Your task to perform on an android device: Go to internet settings Image 0: 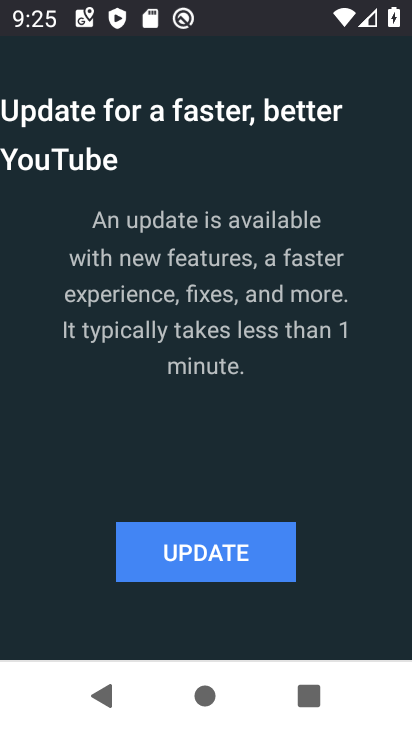
Step 0: press home button
Your task to perform on an android device: Go to internet settings Image 1: 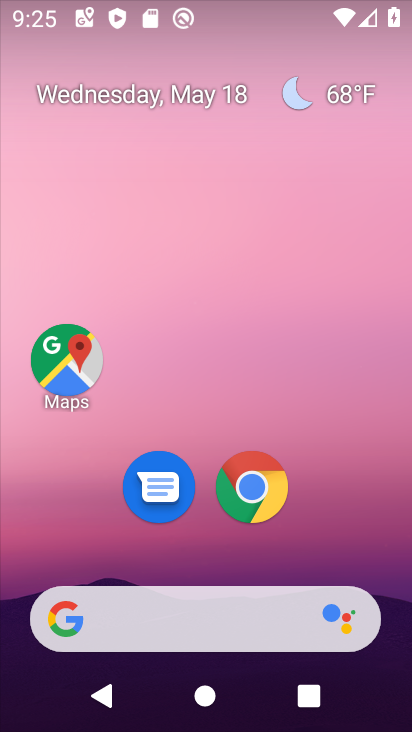
Step 1: drag from (380, 543) to (341, 127)
Your task to perform on an android device: Go to internet settings Image 2: 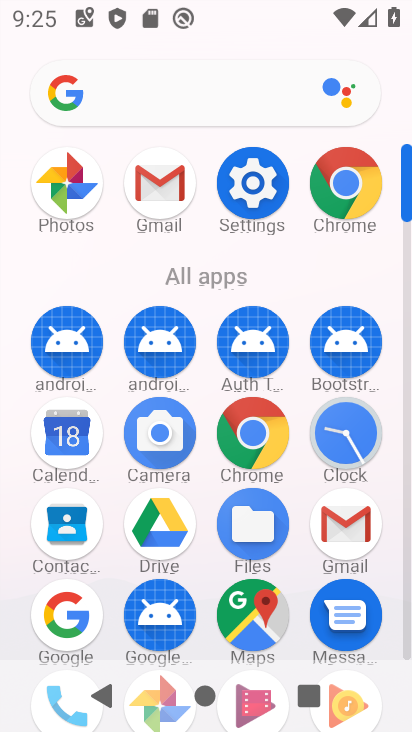
Step 2: click (253, 168)
Your task to perform on an android device: Go to internet settings Image 3: 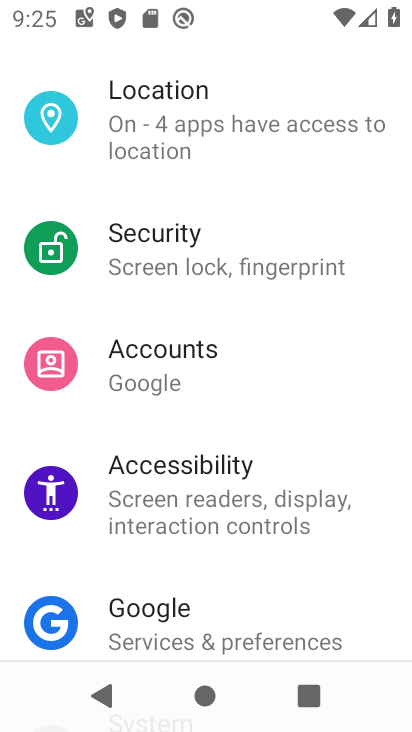
Step 3: drag from (269, 199) to (301, 614)
Your task to perform on an android device: Go to internet settings Image 4: 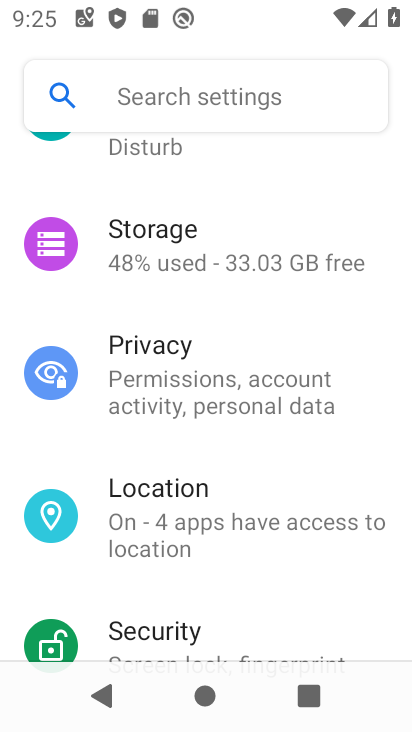
Step 4: drag from (296, 171) to (308, 551)
Your task to perform on an android device: Go to internet settings Image 5: 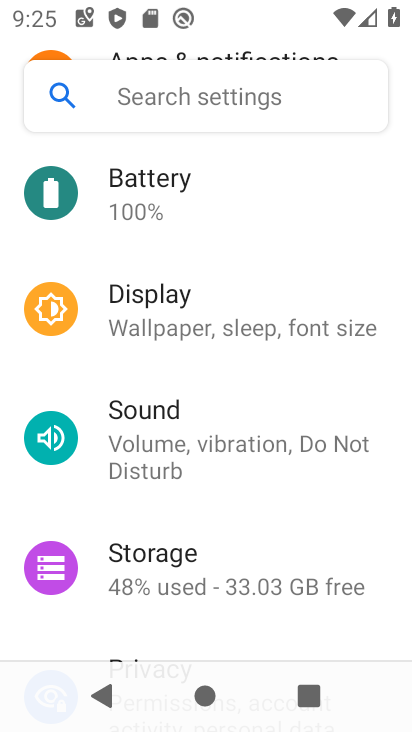
Step 5: drag from (236, 184) to (295, 563)
Your task to perform on an android device: Go to internet settings Image 6: 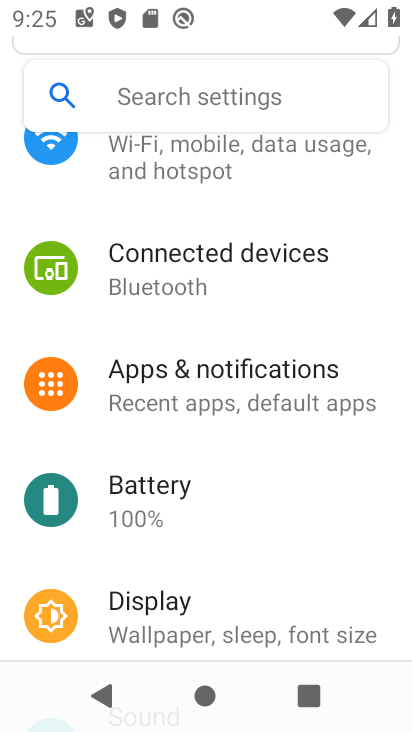
Step 6: drag from (218, 235) to (310, 603)
Your task to perform on an android device: Go to internet settings Image 7: 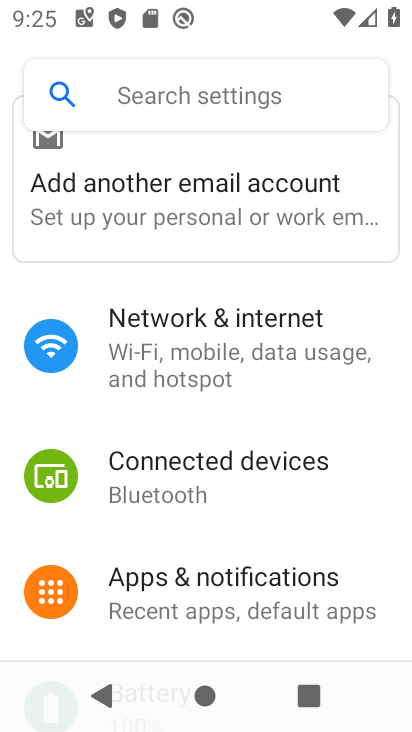
Step 7: click (258, 346)
Your task to perform on an android device: Go to internet settings Image 8: 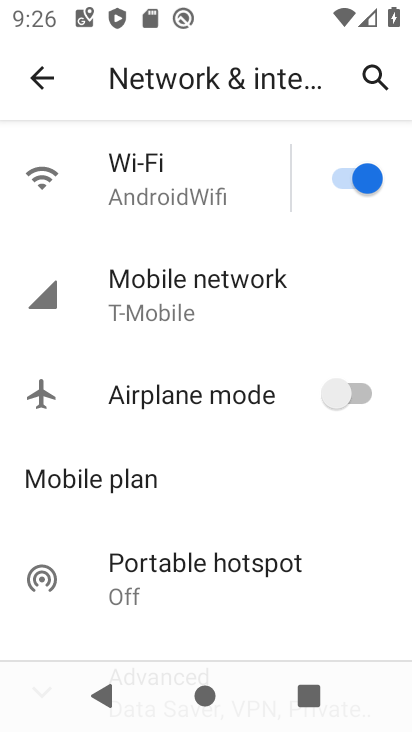
Step 8: click (179, 290)
Your task to perform on an android device: Go to internet settings Image 9: 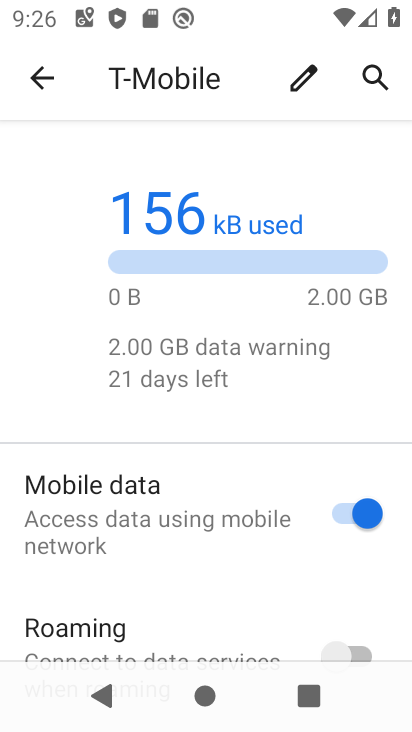
Step 9: task complete